Your task to perform on an android device: change alarm snooze length Image 0: 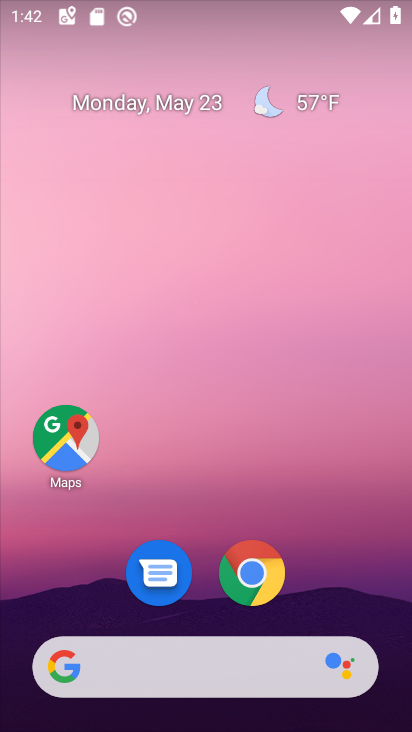
Step 0: drag from (345, 605) to (303, 62)
Your task to perform on an android device: change alarm snooze length Image 1: 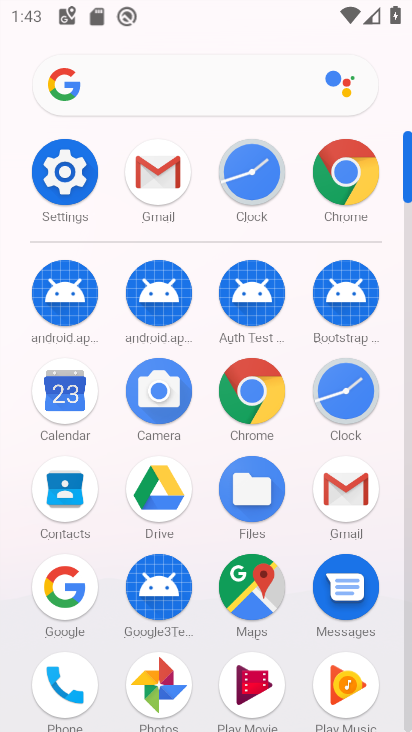
Step 1: click (332, 407)
Your task to perform on an android device: change alarm snooze length Image 2: 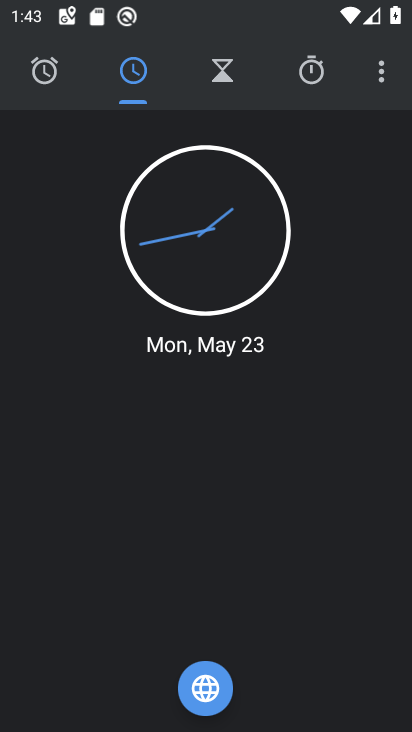
Step 2: click (391, 75)
Your task to perform on an android device: change alarm snooze length Image 3: 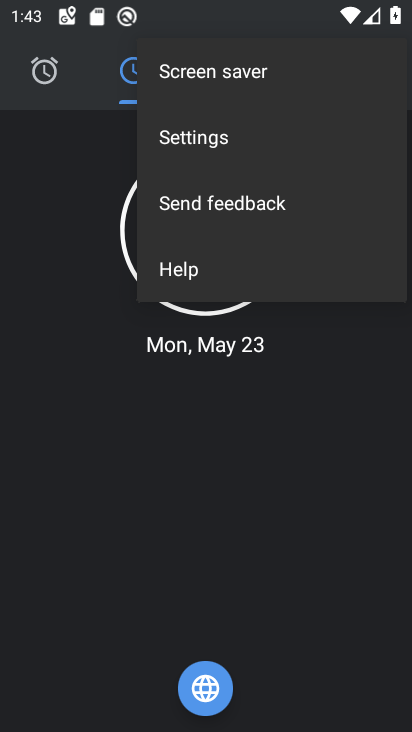
Step 3: click (226, 139)
Your task to perform on an android device: change alarm snooze length Image 4: 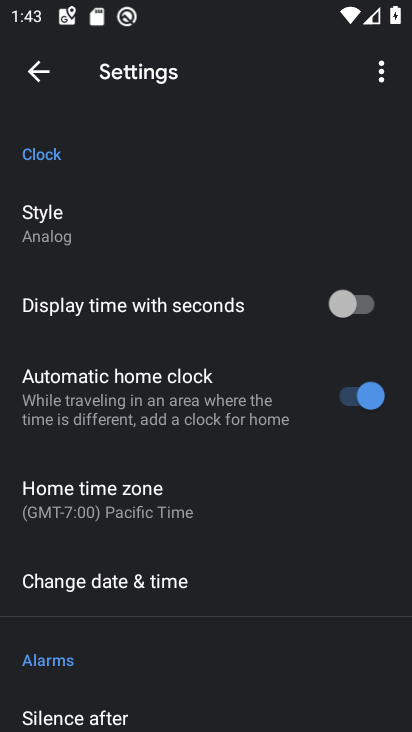
Step 4: drag from (208, 657) to (221, 289)
Your task to perform on an android device: change alarm snooze length Image 5: 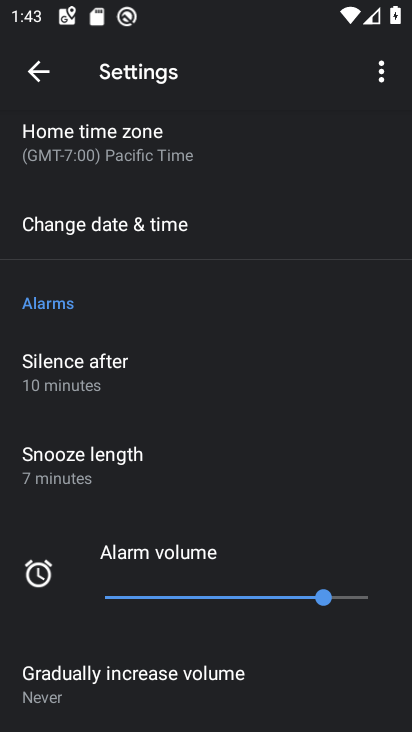
Step 5: click (111, 468)
Your task to perform on an android device: change alarm snooze length Image 6: 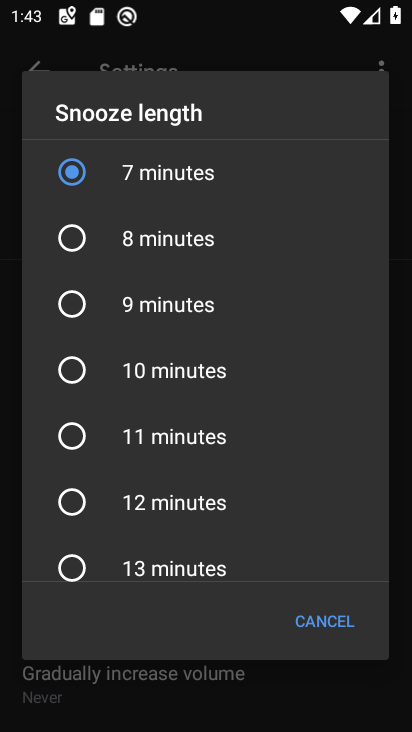
Step 6: drag from (228, 236) to (227, 404)
Your task to perform on an android device: change alarm snooze length Image 7: 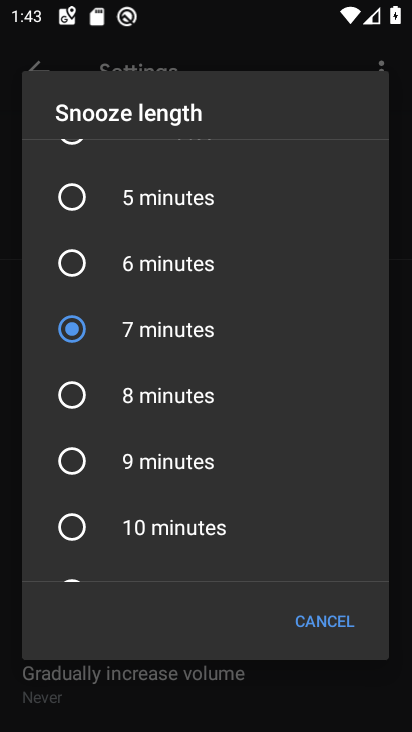
Step 7: click (70, 199)
Your task to perform on an android device: change alarm snooze length Image 8: 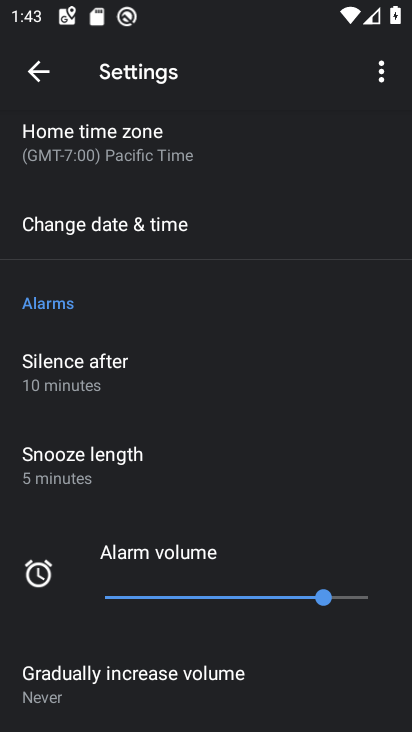
Step 8: task complete